Your task to perform on an android device: What is the news today? Image 0: 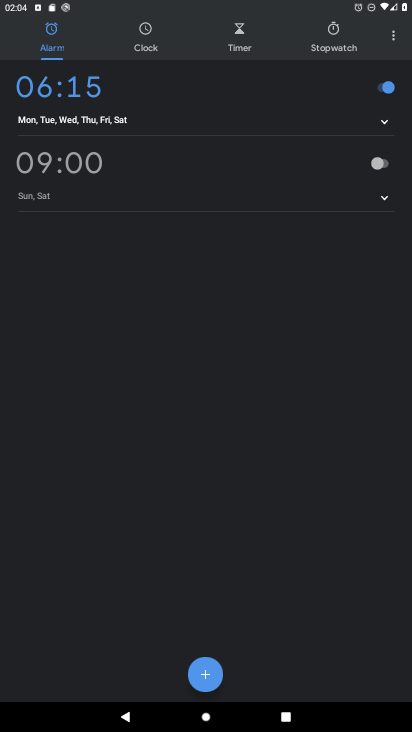
Step 0: press home button
Your task to perform on an android device: What is the news today? Image 1: 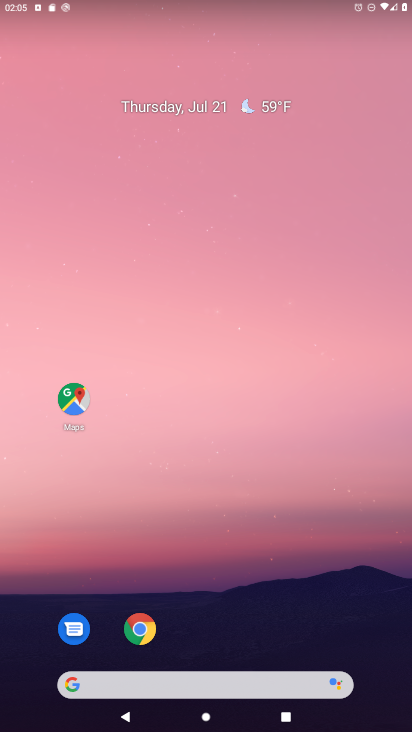
Step 1: task complete